Your task to perform on an android device: turn off airplane mode Image 0: 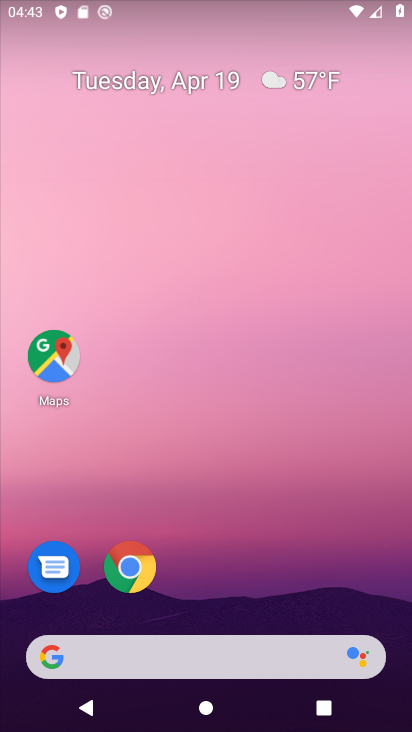
Step 0: drag from (376, 594) to (360, 193)
Your task to perform on an android device: turn off airplane mode Image 1: 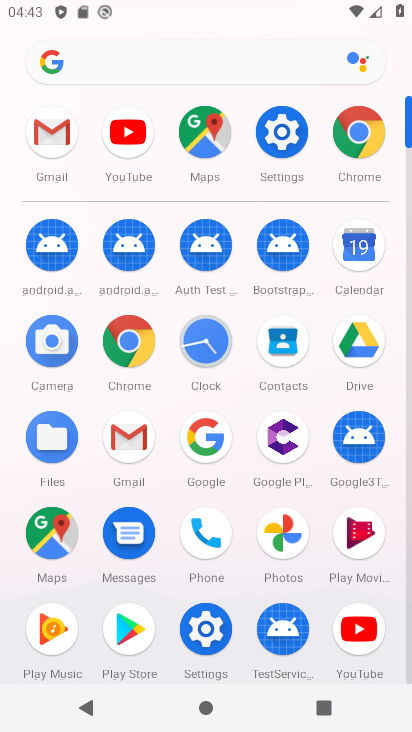
Step 1: click (286, 138)
Your task to perform on an android device: turn off airplane mode Image 2: 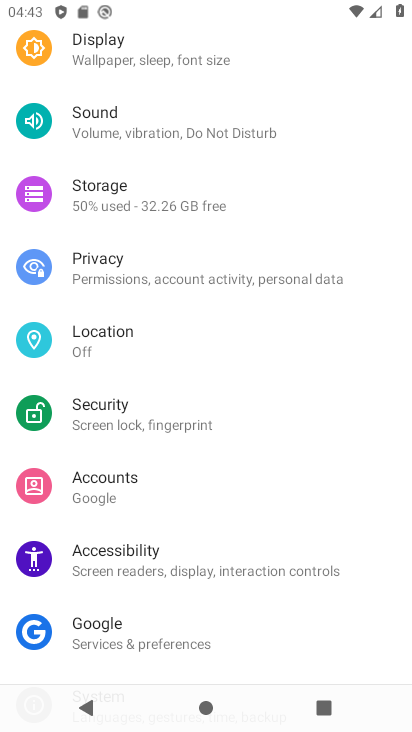
Step 2: drag from (363, 546) to (370, 416)
Your task to perform on an android device: turn off airplane mode Image 3: 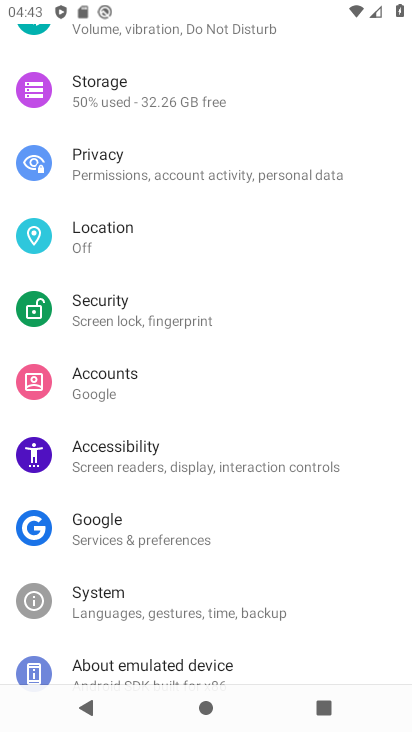
Step 3: drag from (348, 565) to (355, 391)
Your task to perform on an android device: turn off airplane mode Image 4: 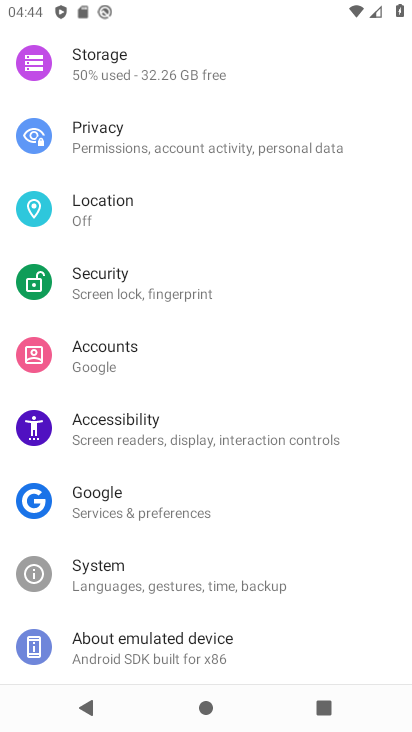
Step 4: drag from (365, 398) to (352, 520)
Your task to perform on an android device: turn off airplane mode Image 5: 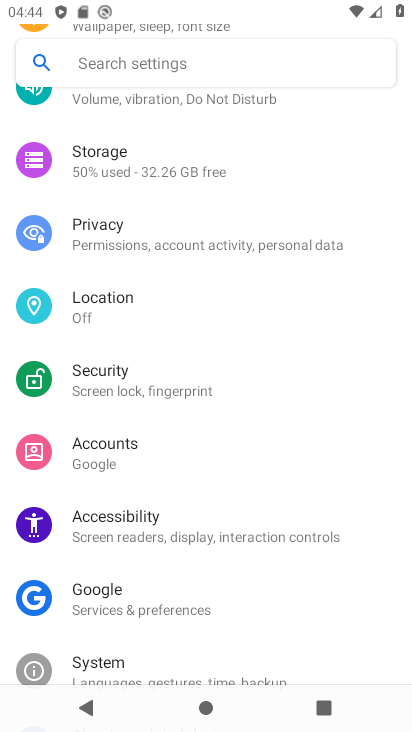
Step 5: drag from (361, 362) to (364, 480)
Your task to perform on an android device: turn off airplane mode Image 6: 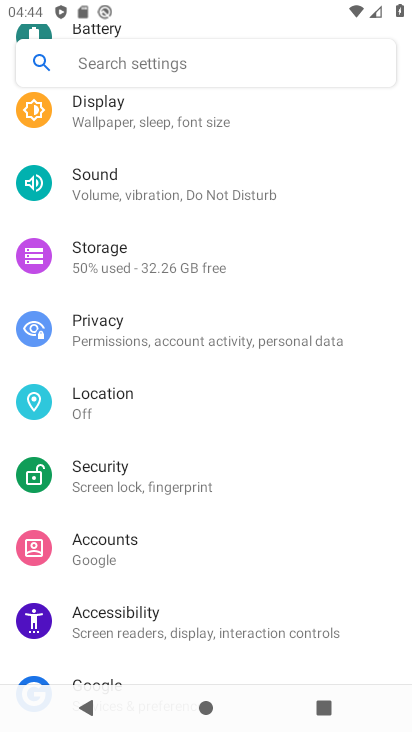
Step 6: drag from (364, 333) to (361, 449)
Your task to perform on an android device: turn off airplane mode Image 7: 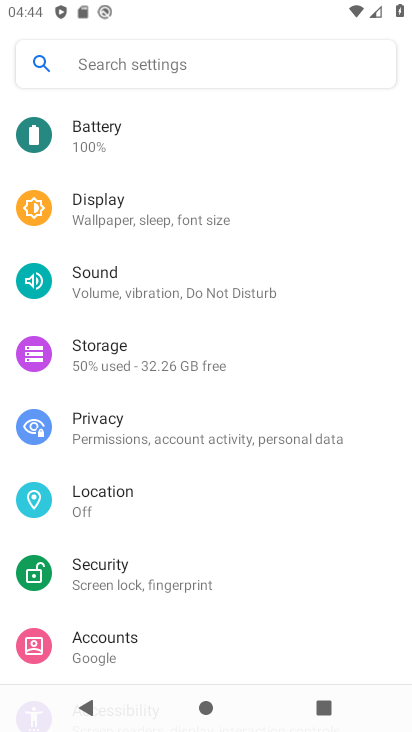
Step 7: drag from (367, 272) to (365, 442)
Your task to perform on an android device: turn off airplane mode Image 8: 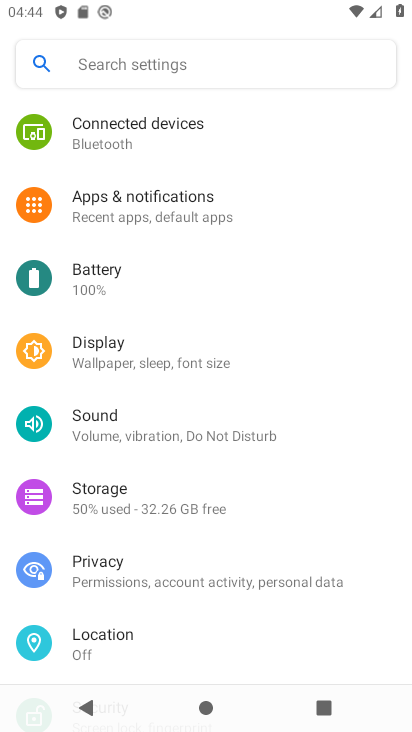
Step 8: drag from (357, 254) to (355, 392)
Your task to perform on an android device: turn off airplane mode Image 9: 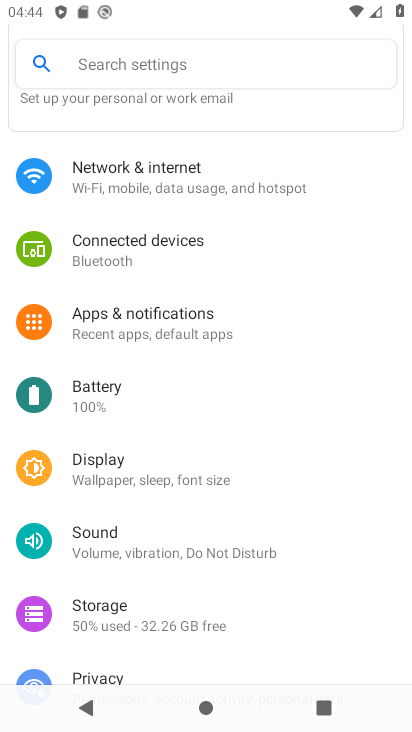
Step 9: click (287, 183)
Your task to perform on an android device: turn off airplane mode Image 10: 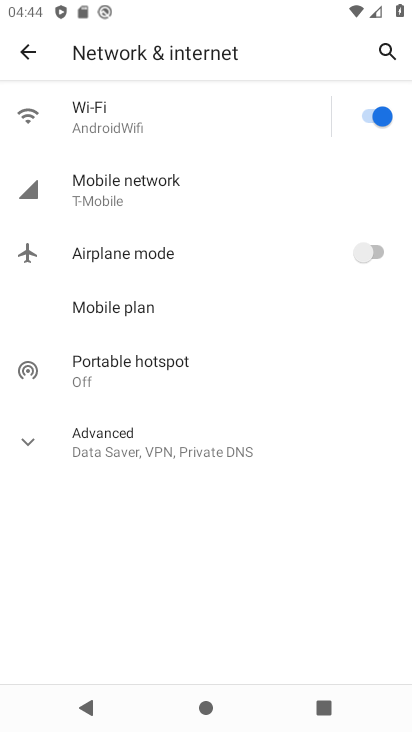
Step 10: task complete